Your task to perform on an android device: turn on javascript in the chrome app Image 0: 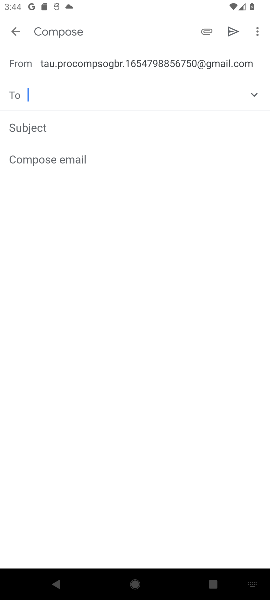
Step 0: click (9, 32)
Your task to perform on an android device: turn on javascript in the chrome app Image 1: 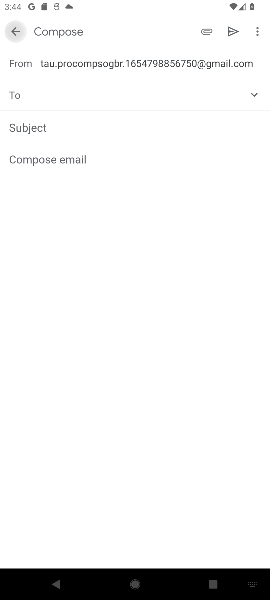
Step 1: click (9, 37)
Your task to perform on an android device: turn on javascript in the chrome app Image 2: 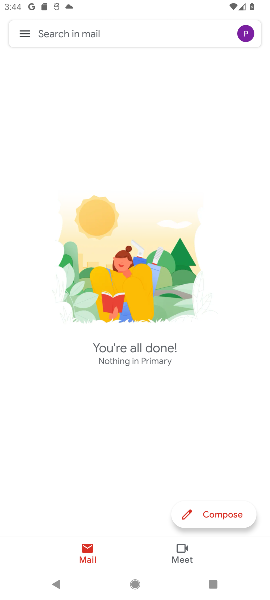
Step 2: press back button
Your task to perform on an android device: turn on javascript in the chrome app Image 3: 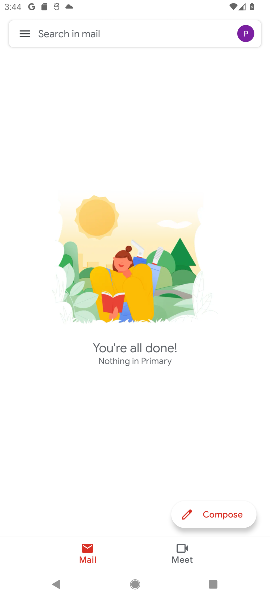
Step 3: press back button
Your task to perform on an android device: turn on javascript in the chrome app Image 4: 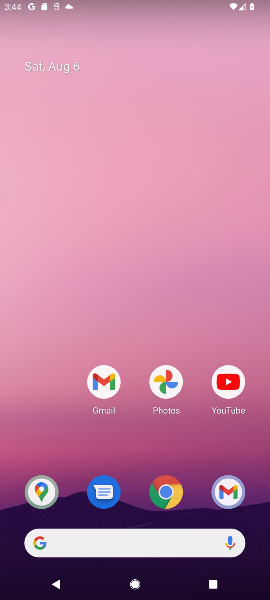
Step 4: press back button
Your task to perform on an android device: turn on javascript in the chrome app Image 5: 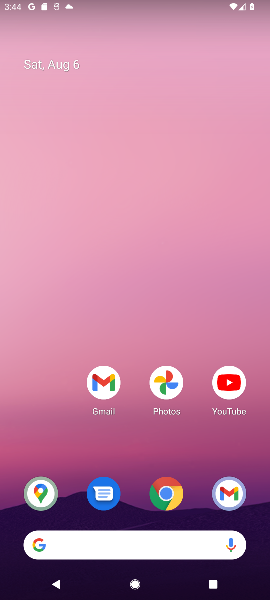
Step 5: press back button
Your task to perform on an android device: turn on javascript in the chrome app Image 6: 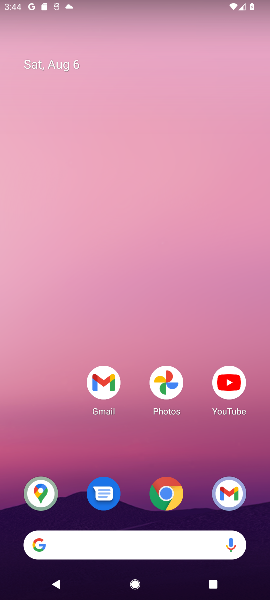
Step 6: press back button
Your task to perform on an android device: turn on javascript in the chrome app Image 7: 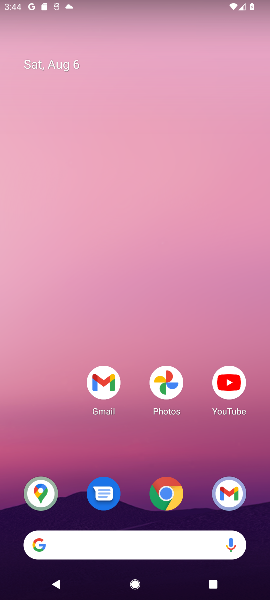
Step 7: press back button
Your task to perform on an android device: turn on javascript in the chrome app Image 8: 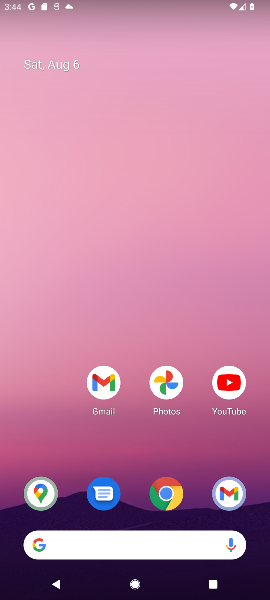
Step 8: drag from (138, 523) to (147, 27)
Your task to perform on an android device: turn on javascript in the chrome app Image 9: 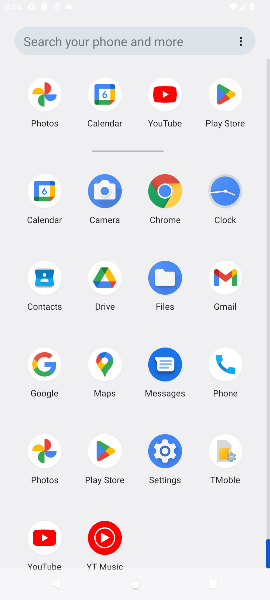
Step 9: drag from (194, 445) to (173, 52)
Your task to perform on an android device: turn on javascript in the chrome app Image 10: 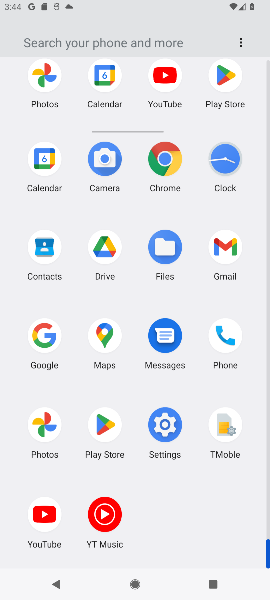
Step 10: drag from (133, 291) to (122, 148)
Your task to perform on an android device: turn on javascript in the chrome app Image 11: 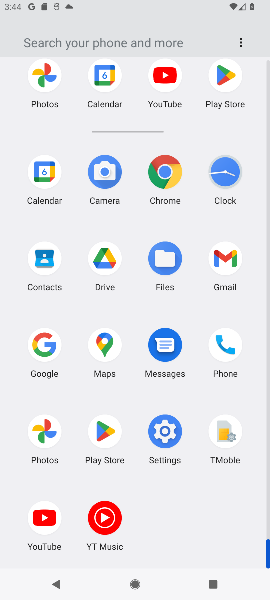
Step 11: click (164, 164)
Your task to perform on an android device: turn on javascript in the chrome app Image 12: 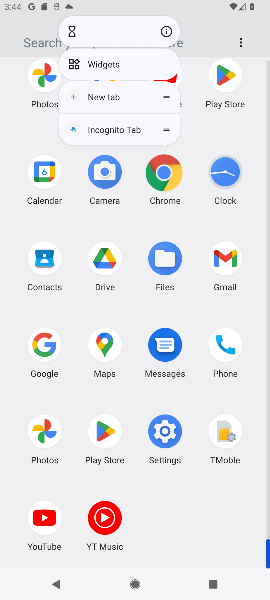
Step 12: click (163, 165)
Your task to perform on an android device: turn on javascript in the chrome app Image 13: 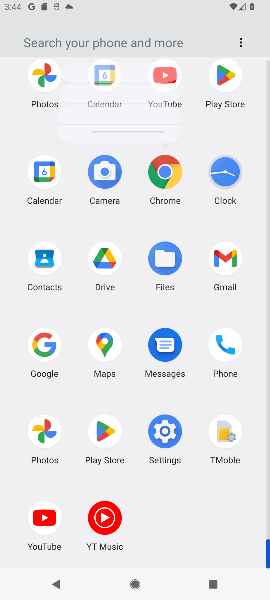
Step 13: click (169, 173)
Your task to perform on an android device: turn on javascript in the chrome app Image 14: 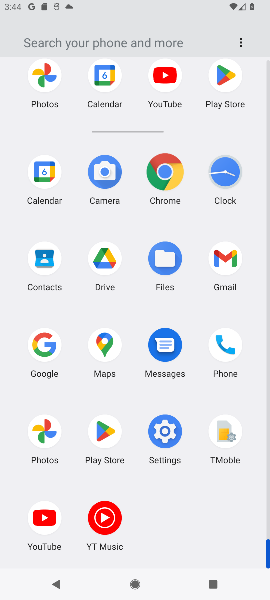
Step 14: click (170, 174)
Your task to perform on an android device: turn on javascript in the chrome app Image 15: 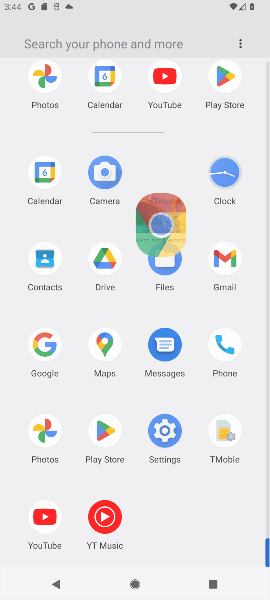
Step 15: click (168, 176)
Your task to perform on an android device: turn on javascript in the chrome app Image 16: 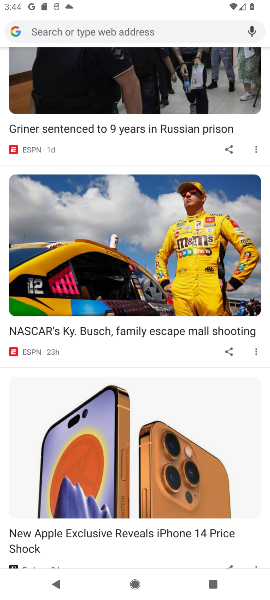
Step 16: click (166, 178)
Your task to perform on an android device: turn on javascript in the chrome app Image 17: 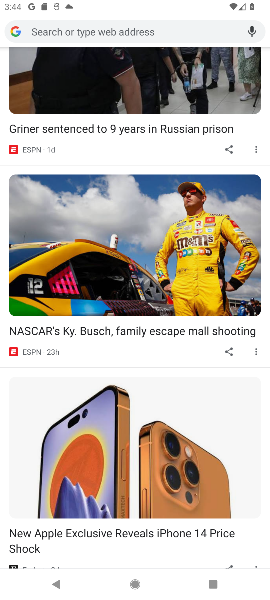
Step 17: drag from (249, 35) to (169, 589)
Your task to perform on an android device: turn on javascript in the chrome app Image 18: 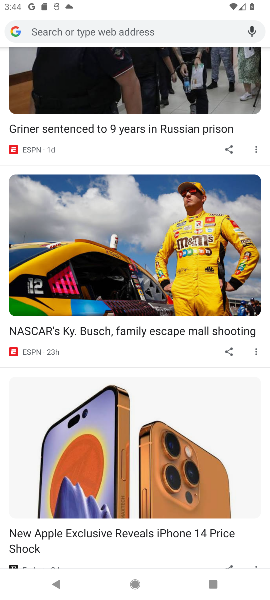
Step 18: drag from (197, 59) to (195, 548)
Your task to perform on an android device: turn on javascript in the chrome app Image 19: 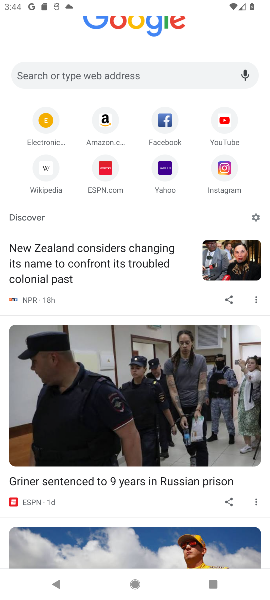
Step 19: drag from (91, 78) to (131, 410)
Your task to perform on an android device: turn on javascript in the chrome app Image 20: 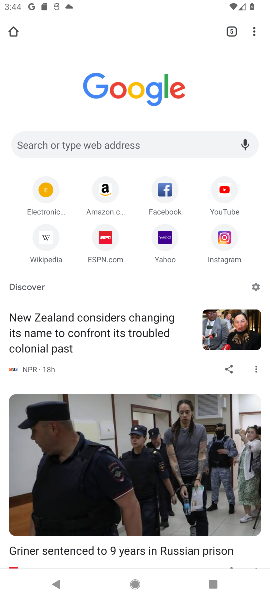
Step 20: drag from (256, 33) to (152, 310)
Your task to perform on an android device: turn on javascript in the chrome app Image 21: 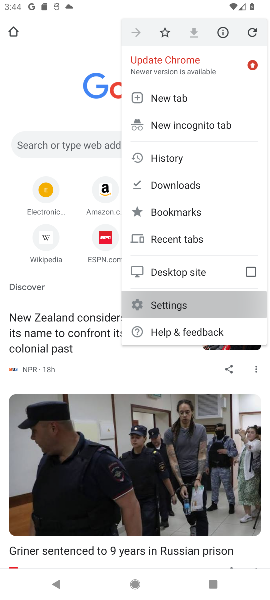
Step 21: click (153, 313)
Your task to perform on an android device: turn on javascript in the chrome app Image 22: 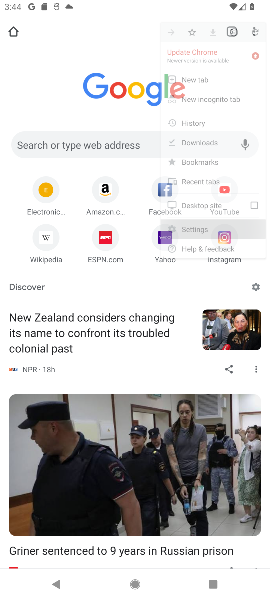
Step 22: click (155, 316)
Your task to perform on an android device: turn on javascript in the chrome app Image 23: 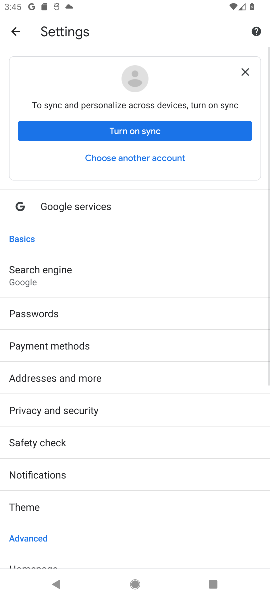
Step 23: drag from (27, 467) to (39, 189)
Your task to perform on an android device: turn on javascript in the chrome app Image 24: 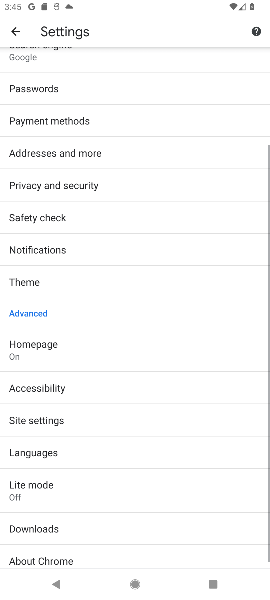
Step 24: drag from (84, 419) to (81, 13)
Your task to perform on an android device: turn on javascript in the chrome app Image 25: 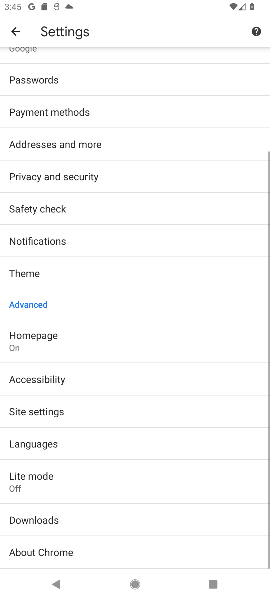
Step 25: drag from (102, 397) to (102, 195)
Your task to perform on an android device: turn on javascript in the chrome app Image 26: 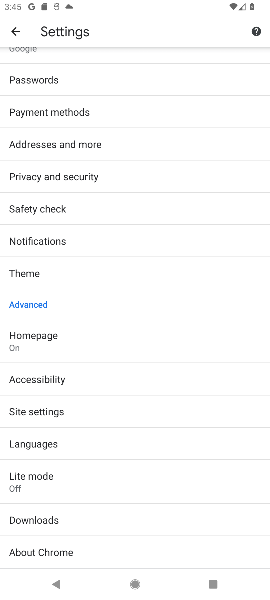
Step 26: click (33, 408)
Your task to perform on an android device: turn on javascript in the chrome app Image 27: 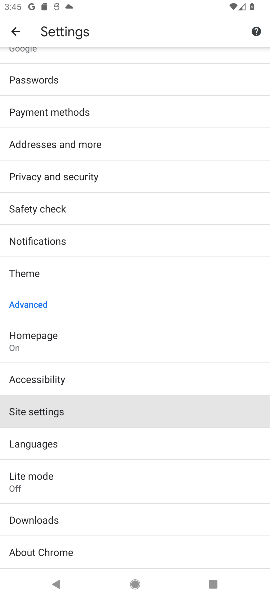
Step 27: click (33, 408)
Your task to perform on an android device: turn on javascript in the chrome app Image 28: 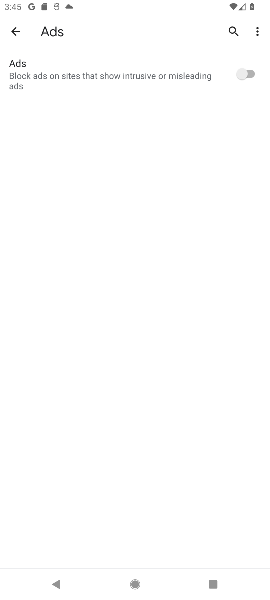
Step 28: click (13, 28)
Your task to perform on an android device: turn on javascript in the chrome app Image 29: 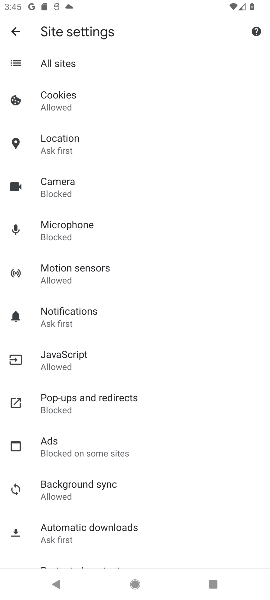
Step 29: click (58, 317)
Your task to perform on an android device: turn on javascript in the chrome app Image 30: 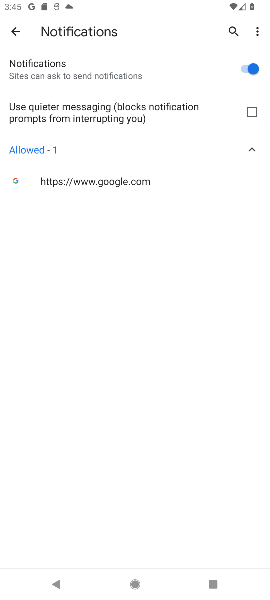
Step 30: click (13, 30)
Your task to perform on an android device: turn on javascript in the chrome app Image 31: 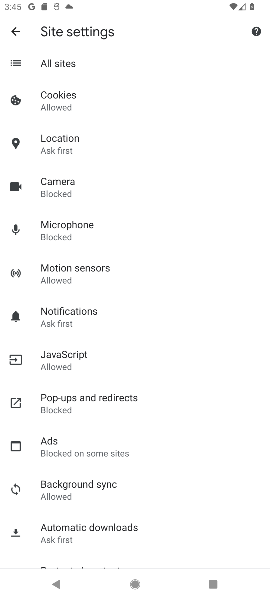
Step 31: click (53, 355)
Your task to perform on an android device: turn on javascript in the chrome app Image 32: 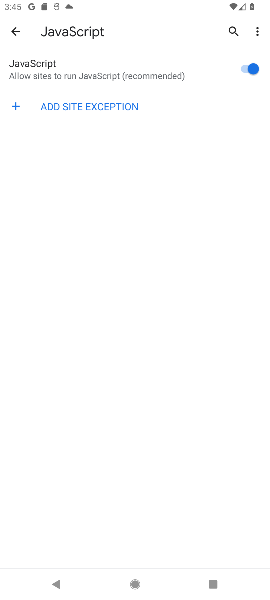
Step 32: task complete